Your task to perform on an android device: install app "eBay: The shopping marketplace" Image 0: 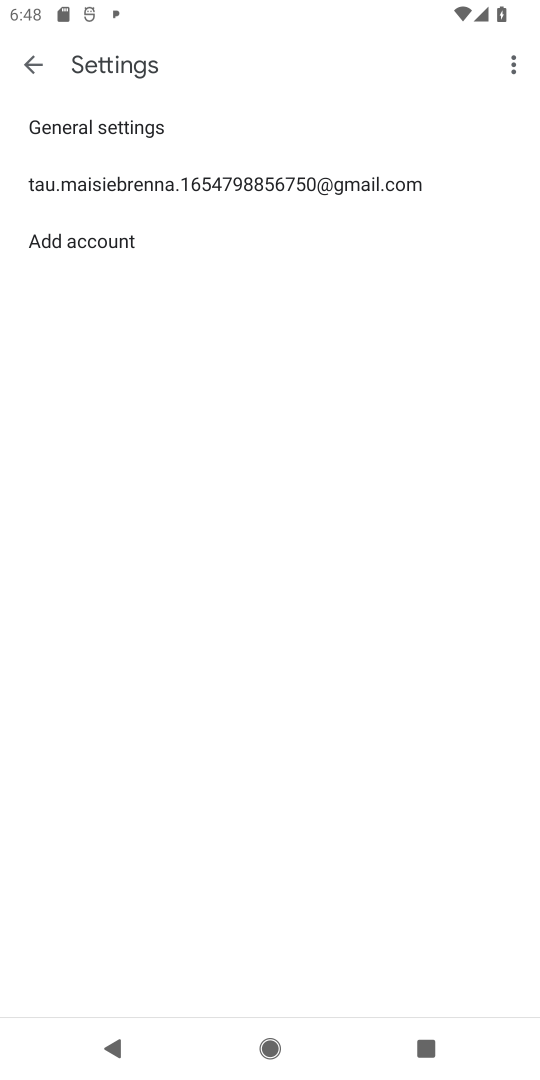
Step 0: press home button
Your task to perform on an android device: install app "eBay: The shopping marketplace" Image 1: 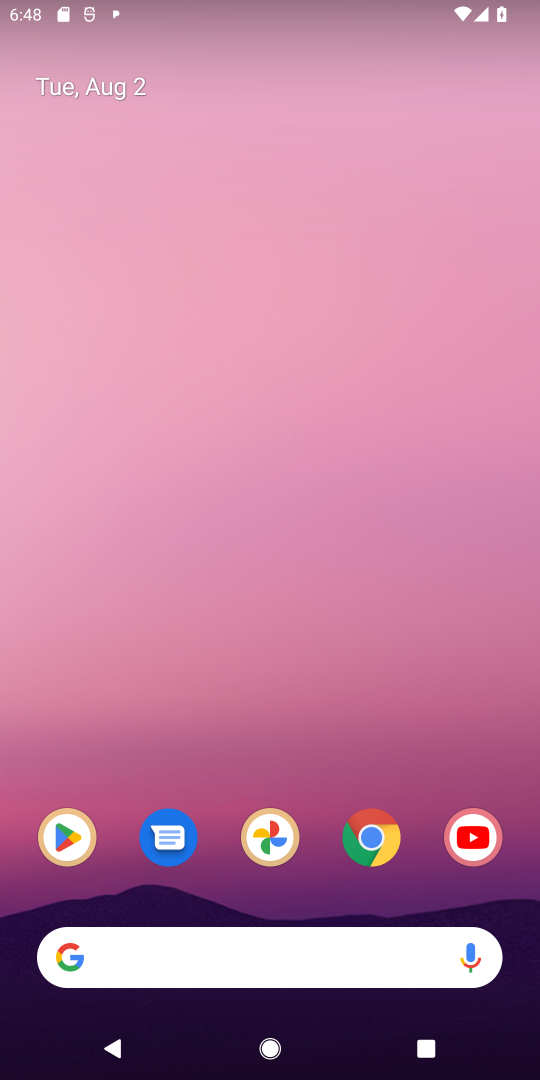
Step 1: click (80, 852)
Your task to perform on an android device: install app "eBay: The shopping marketplace" Image 2: 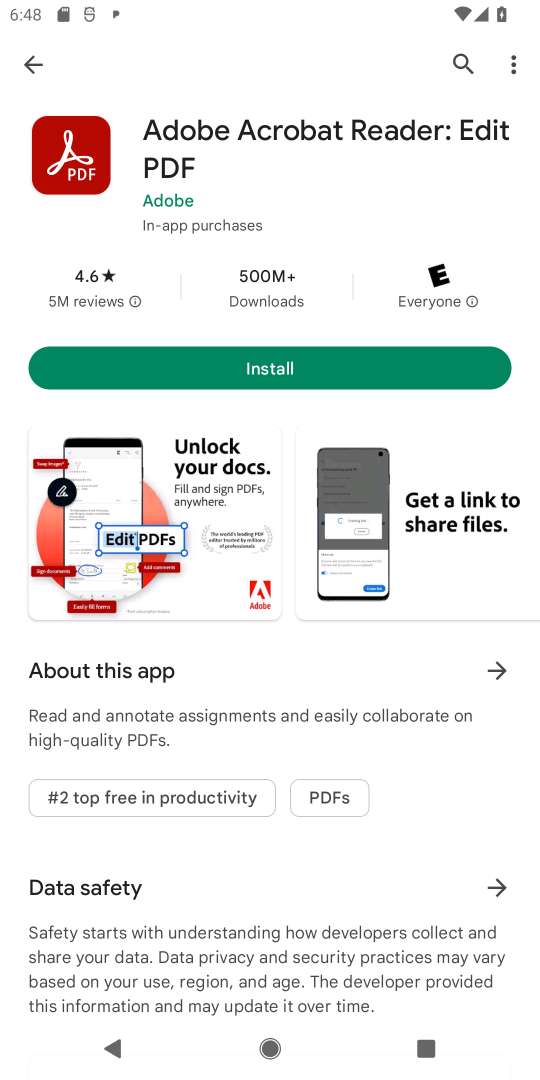
Step 2: click (449, 55)
Your task to perform on an android device: install app "eBay: The shopping marketplace" Image 3: 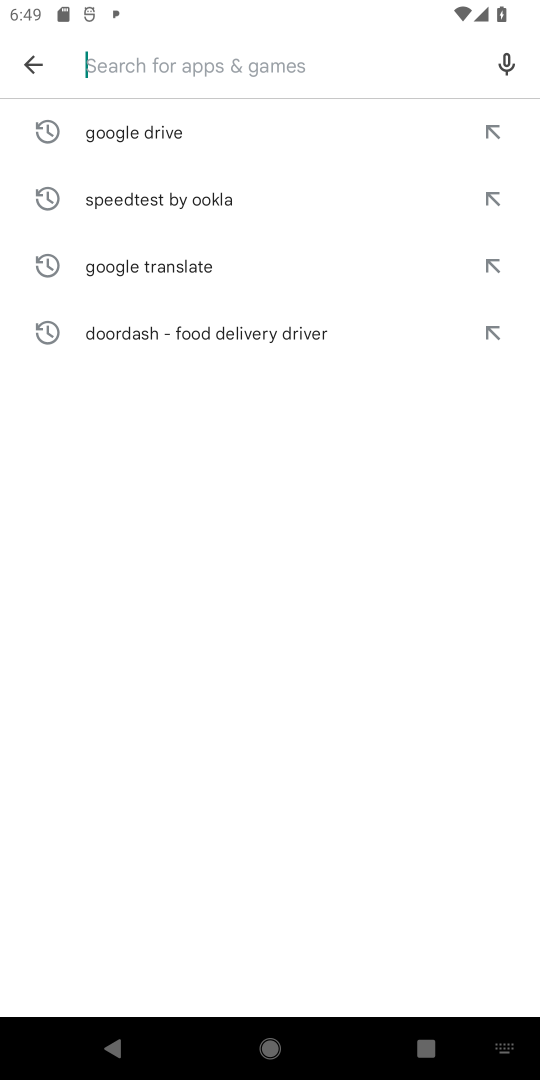
Step 3: type "eBay: The shopping marketplace"
Your task to perform on an android device: install app "eBay: The shopping marketplace" Image 4: 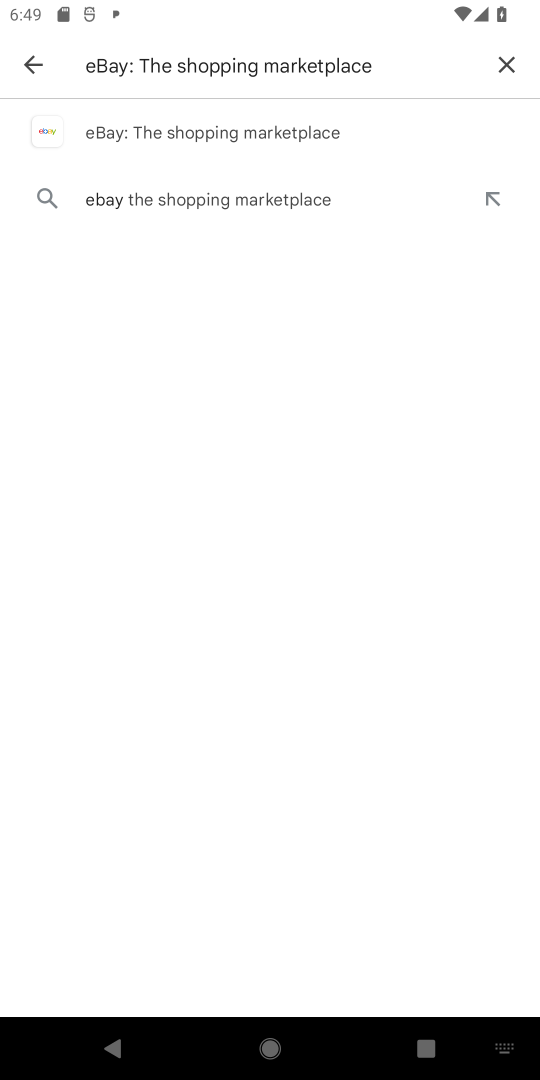
Step 4: click (224, 140)
Your task to perform on an android device: install app "eBay: The shopping marketplace" Image 5: 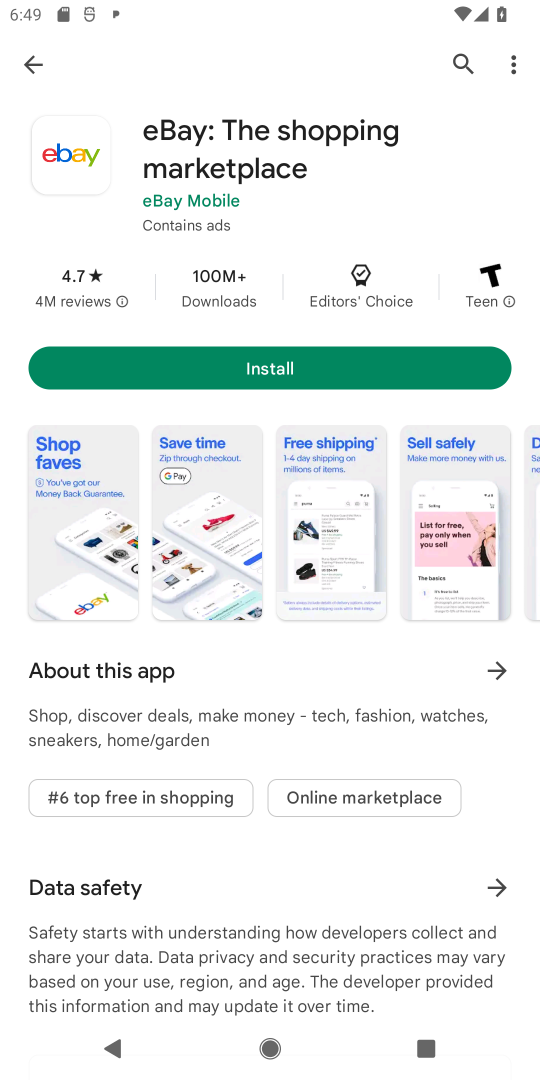
Step 5: click (253, 364)
Your task to perform on an android device: install app "eBay: The shopping marketplace" Image 6: 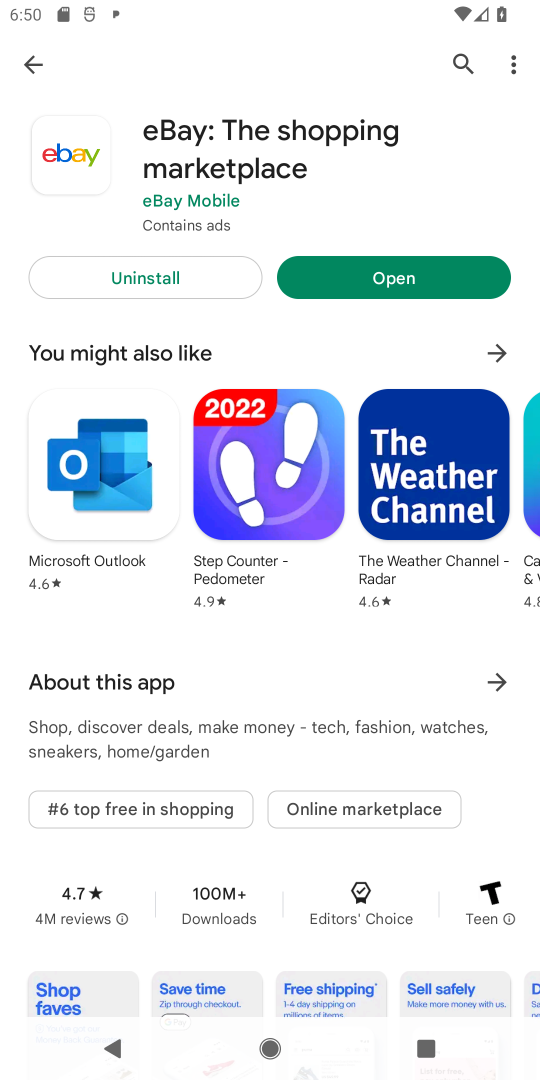
Step 6: task complete